Your task to perform on an android device: Go to Android settings Image 0: 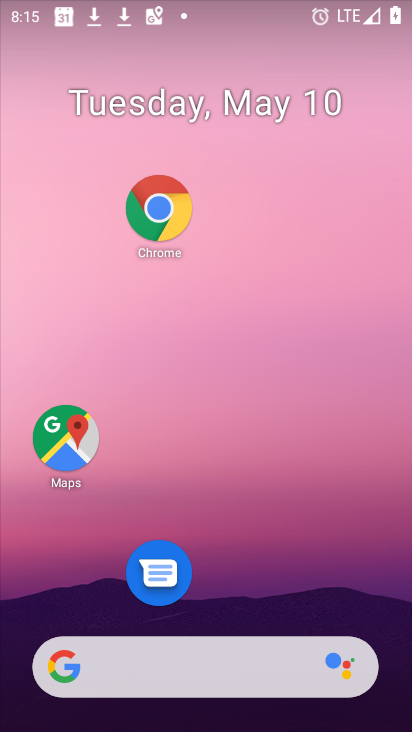
Step 0: drag from (279, 677) to (310, 253)
Your task to perform on an android device: Go to Android settings Image 1: 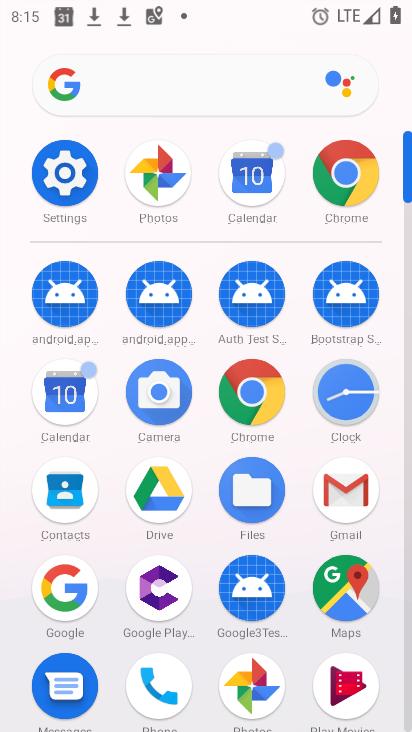
Step 1: click (65, 166)
Your task to perform on an android device: Go to Android settings Image 2: 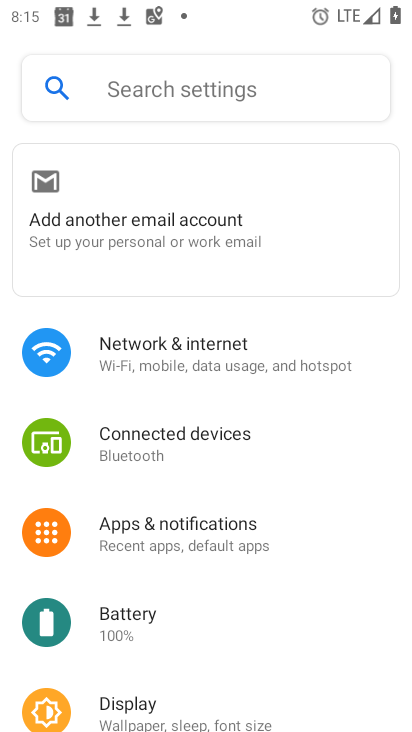
Step 2: click (108, 100)
Your task to perform on an android device: Go to Android settings Image 3: 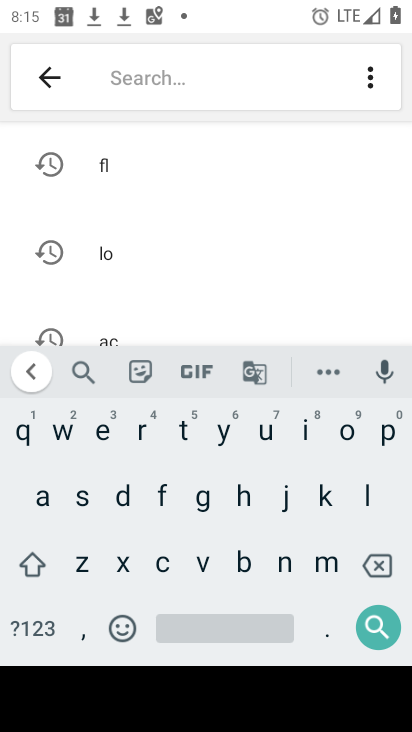
Step 3: click (36, 496)
Your task to perform on an android device: Go to Android settings Image 4: 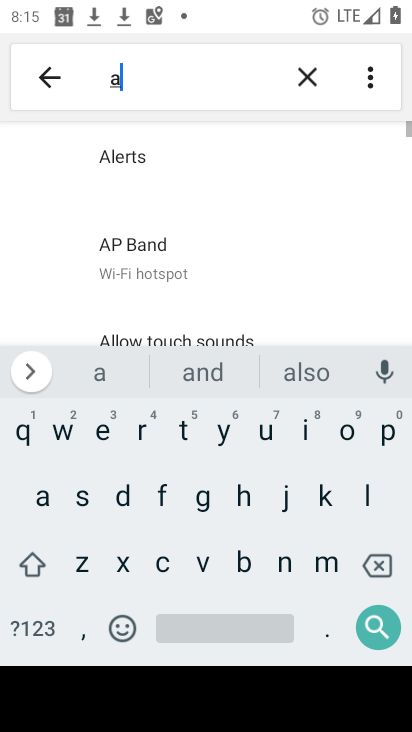
Step 4: click (286, 554)
Your task to perform on an android device: Go to Android settings Image 5: 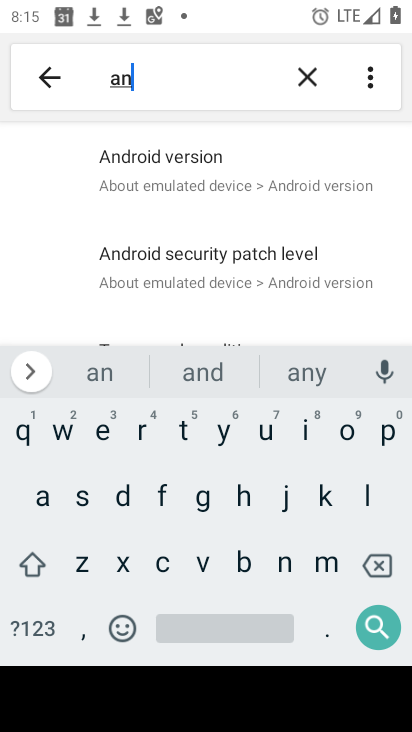
Step 5: click (190, 155)
Your task to perform on an android device: Go to Android settings Image 6: 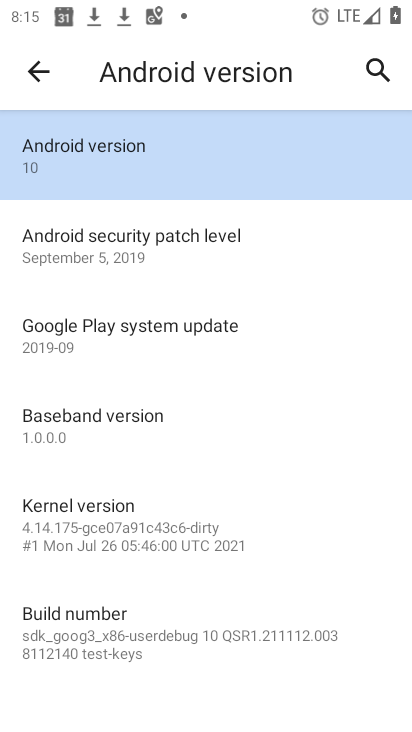
Step 6: task complete